Your task to perform on an android device: Open calendar and show me the fourth week of next month Image 0: 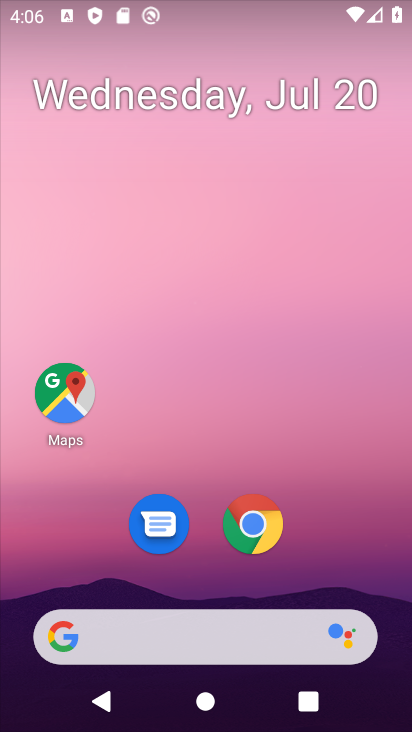
Step 0: drag from (337, 562) to (324, 52)
Your task to perform on an android device: Open calendar and show me the fourth week of next month Image 1: 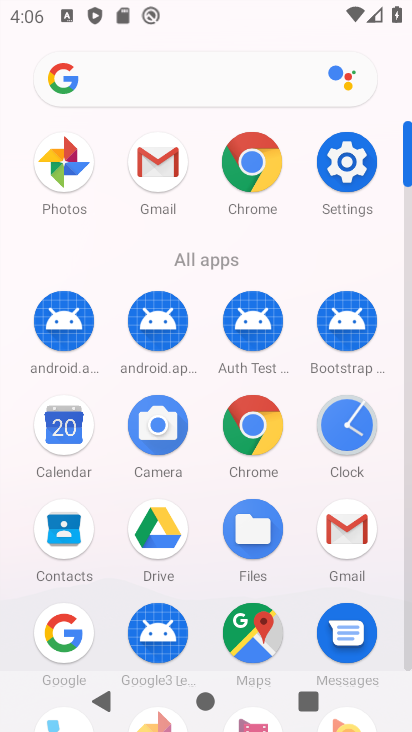
Step 1: click (75, 418)
Your task to perform on an android device: Open calendar and show me the fourth week of next month Image 2: 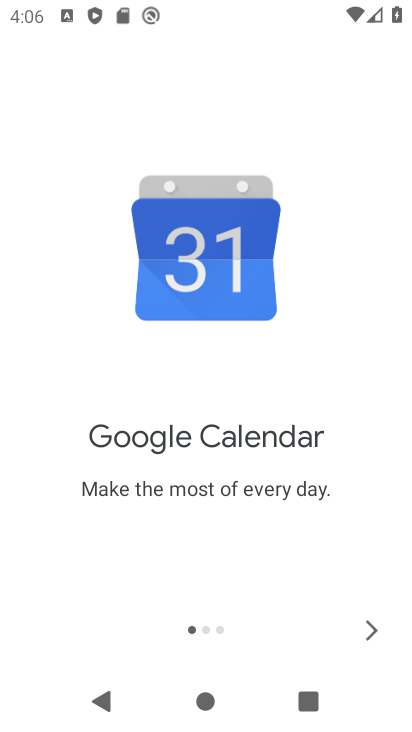
Step 2: click (374, 631)
Your task to perform on an android device: Open calendar and show me the fourth week of next month Image 3: 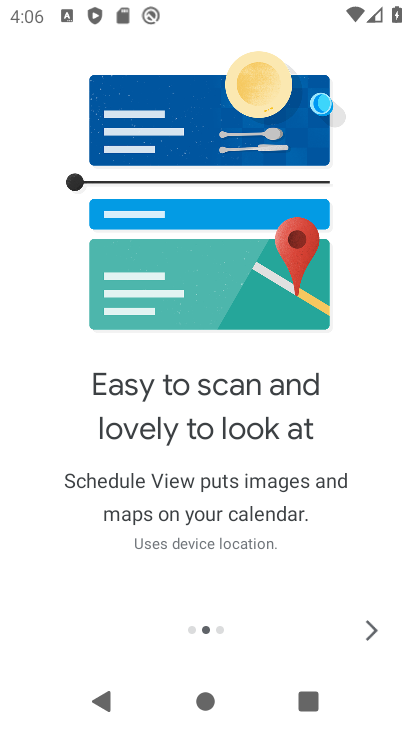
Step 3: click (374, 631)
Your task to perform on an android device: Open calendar and show me the fourth week of next month Image 4: 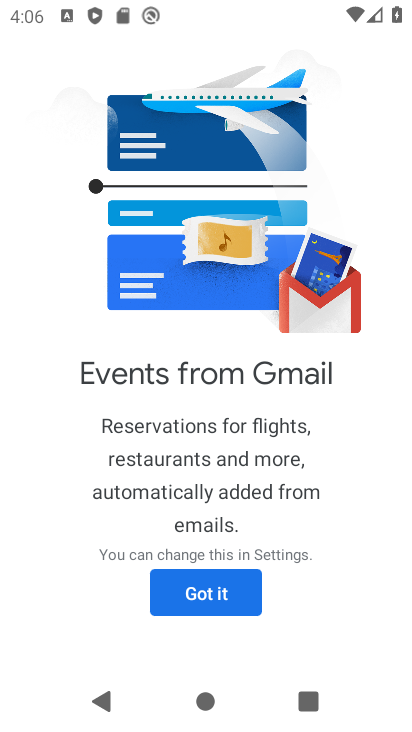
Step 4: click (226, 589)
Your task to perform on an android device: Open calendar and show me the fourth week of next month Image 5: 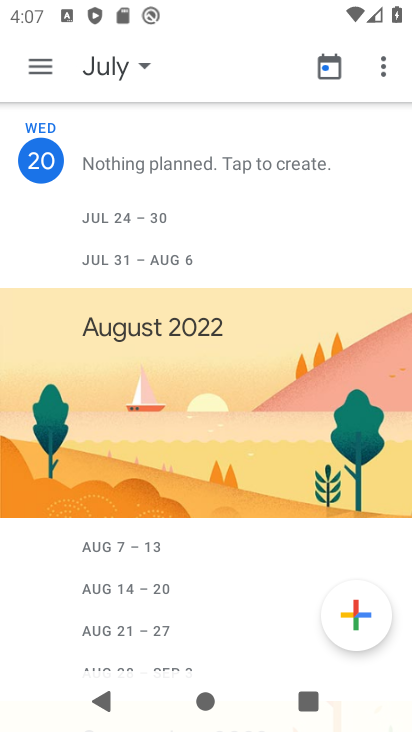
Step 5: click (50, 66)
Your task to perform on an android device: Open calendar and show me the fourth week of next month Image 6: 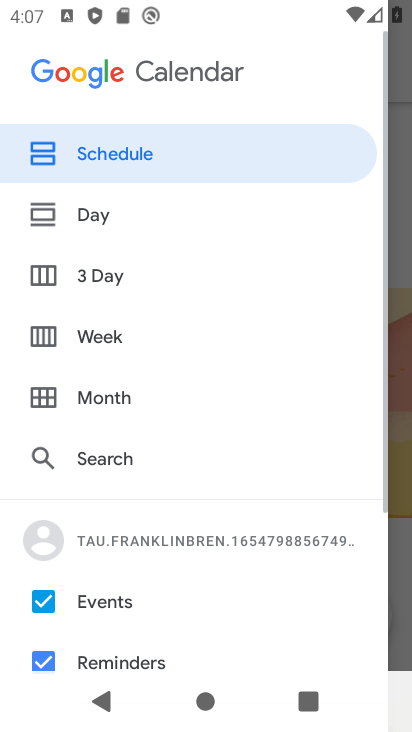
Step 6: click (71, 384)
Your task to perform on an android device: Open calendar and show me the fourth week of next month Image 7: 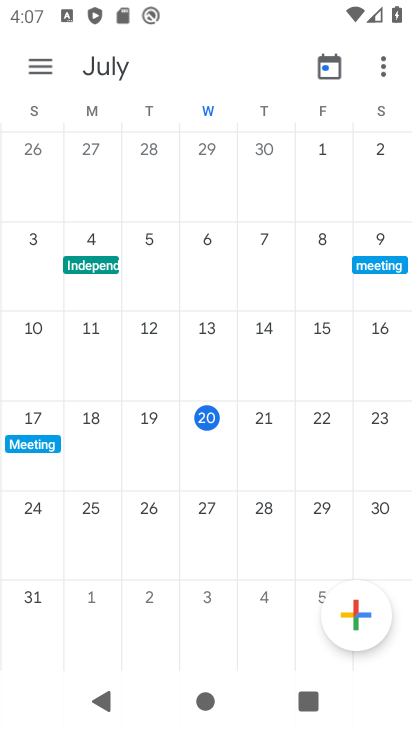
Step 7: drag from (362, 382) to (9, 328)
Your task to perform on an android device: Open calendar and show me the fourth week of next month Image 8: 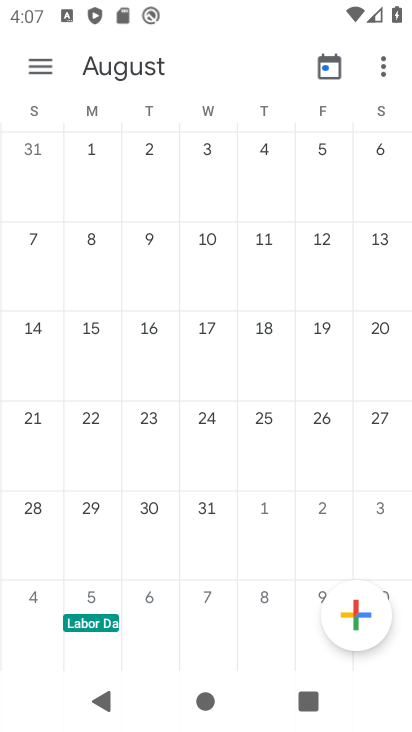
Step 8: click (30, 501)
Your task to perform on an android device: Open calendar and show me the fourth week of next month Image 9: 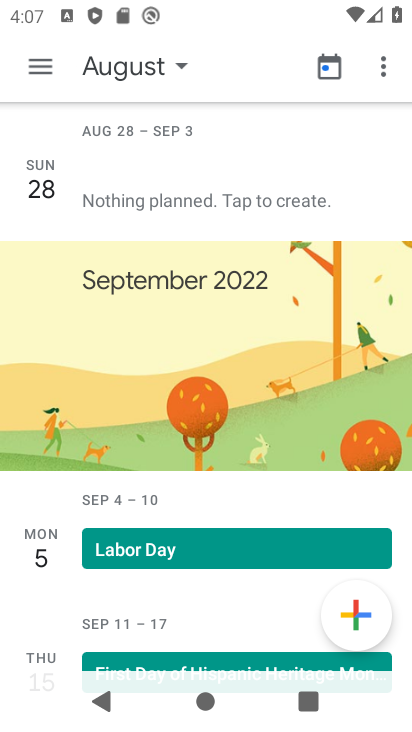
Step 9: click (50, 60)
Your task to perform on an android device: Open calendar and show me the fourth week of next month Image 10: 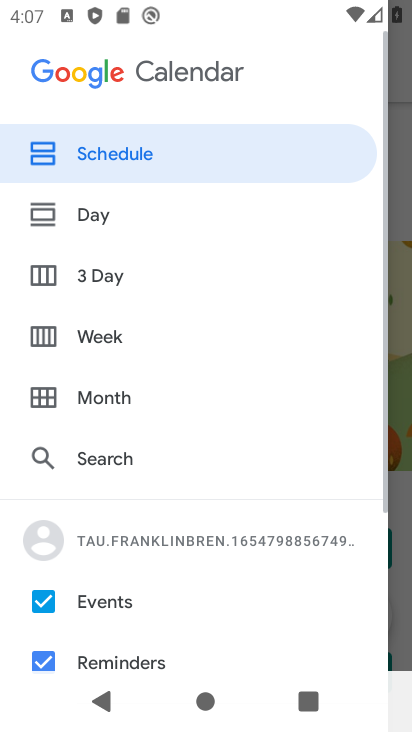
Step 10: click (80, 329)
Your task to perform on an android device: Open calendar and show me the fourth week of next month Image 11: 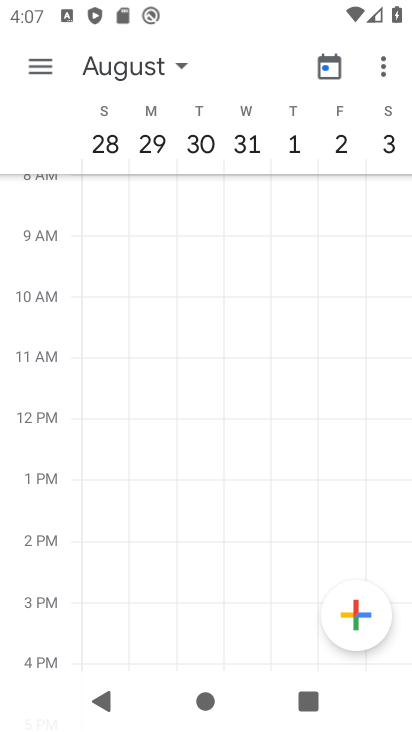
Step 11: task complete